Your task to perform on an android device: Turn on the flashlight Image 0: 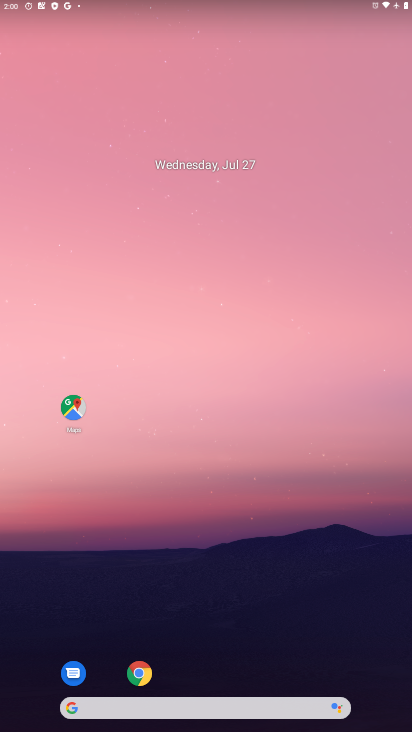
Step 0: drag from (182, 1) to (232, 559)
Your task to perform on an android device: Turn on the flashlight Image 1: 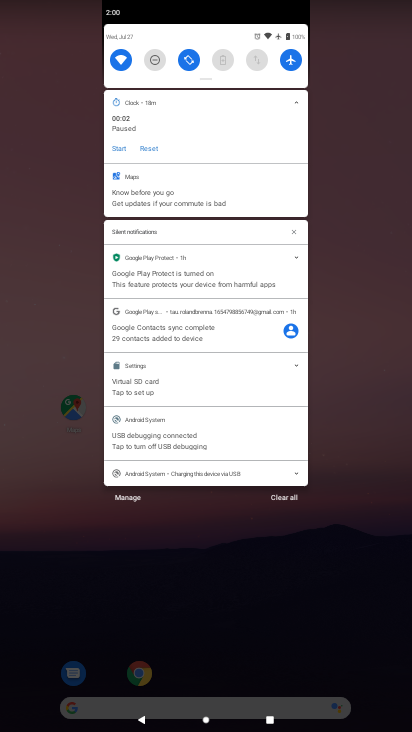
Step 1: task complete